Your task to perform on an android device: remove spam from my inbox in the gmail app Image 0: 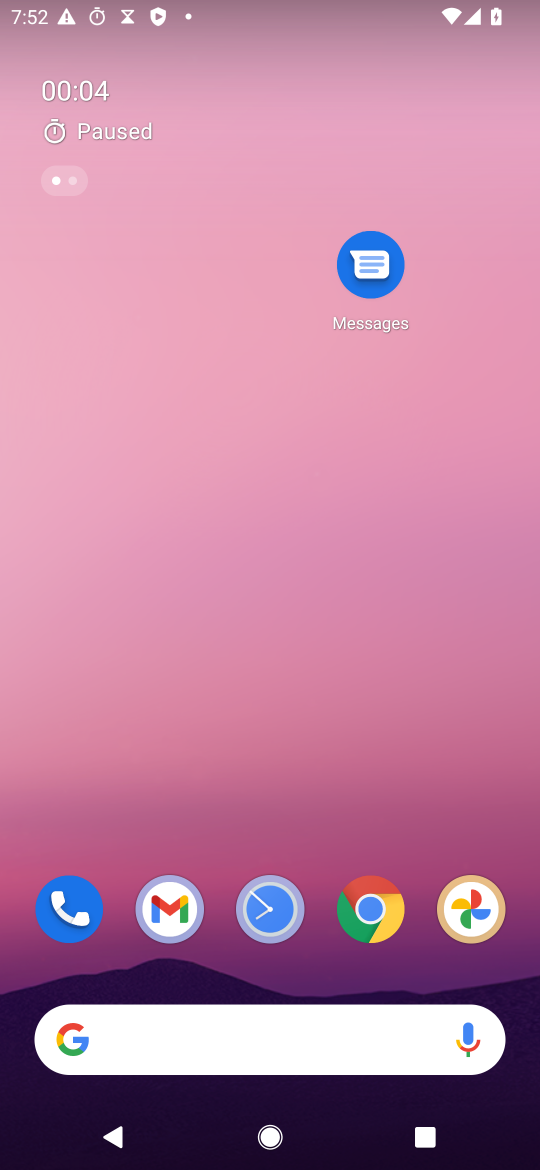
Step 0: click (170, 908)
Your task to perform on an android device: remove spam from my inbox in the gmail app Image 1: 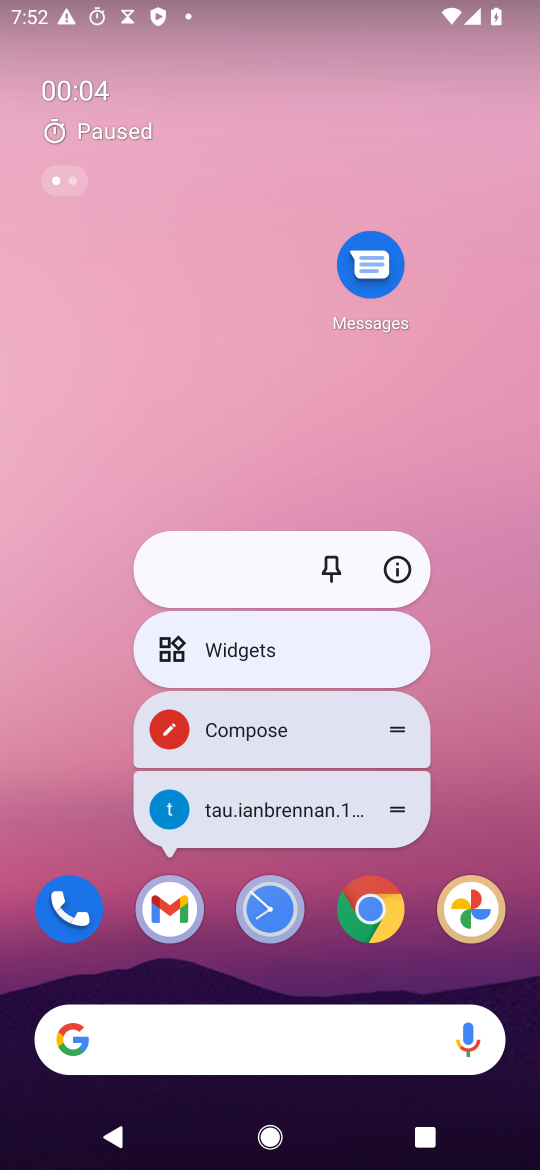
Step 1: click (170, 908)
Your task to perform on an android device: remove spam from my inbox in the gmail app Image 2: 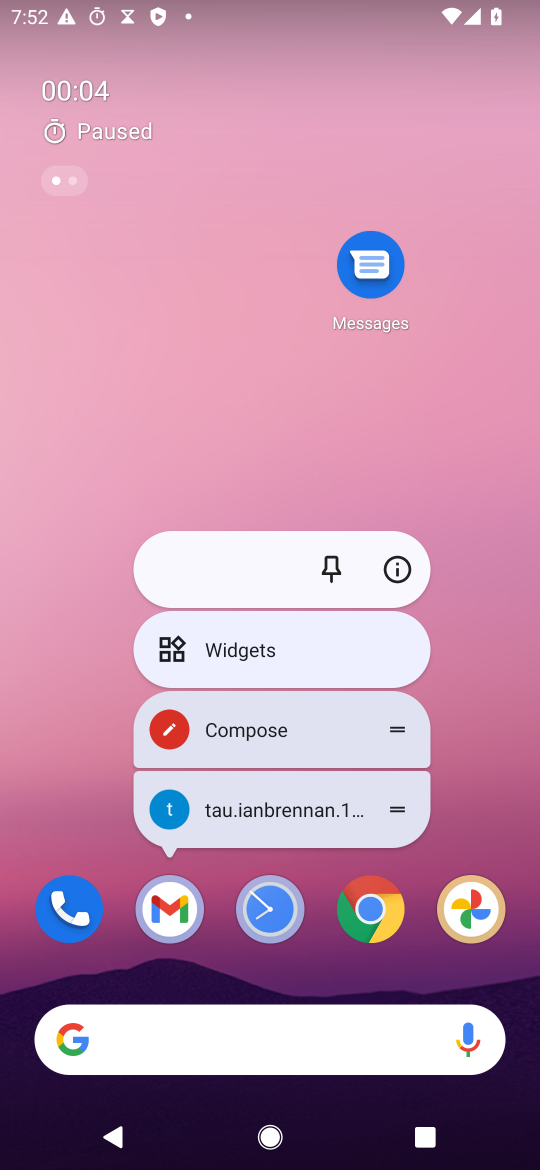
Step 2: click (170, 908)
Your task to perform on an android device: remove spam from my inbox in the gmail app Image 3: 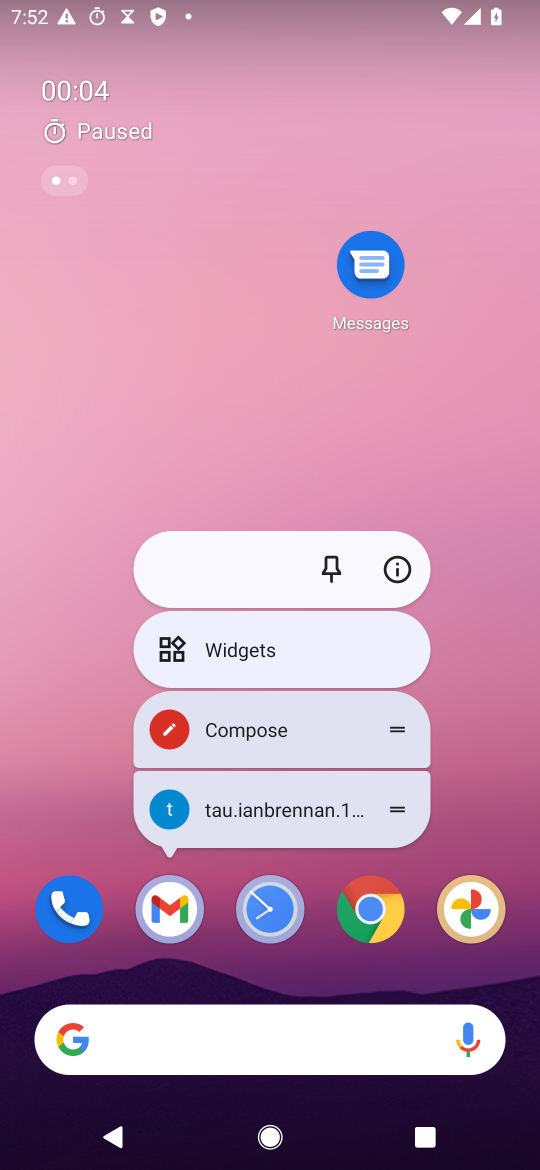
Step 3: click (164, 920)
Your task to perform on an android device: remove spam from my inbox in the gmail app Image 4: 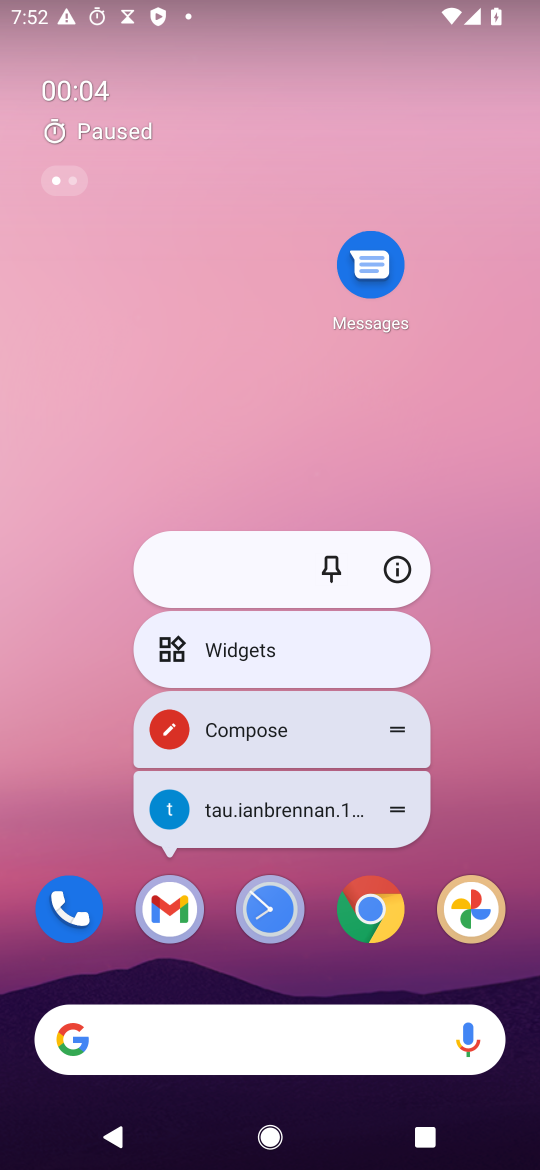
Step 4: click (164, 920)
Your task to perform on an android device: remove spam from my inbox in the gmail app Image 5: 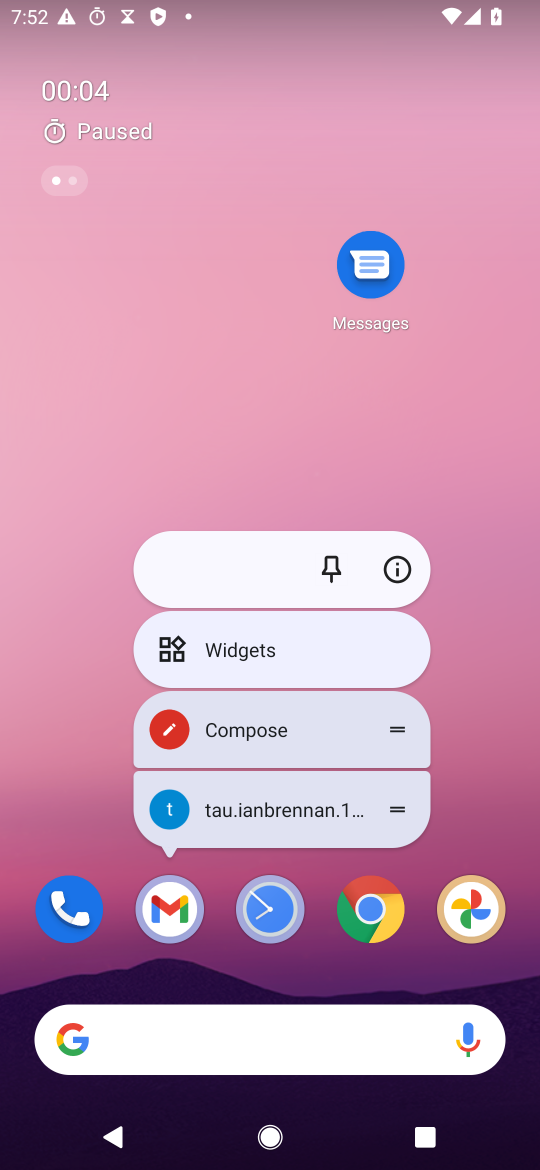
Step 5: click (164, 923)
Your task to perform on an android device: remove spam from my inbox in the gmail app Image 6: 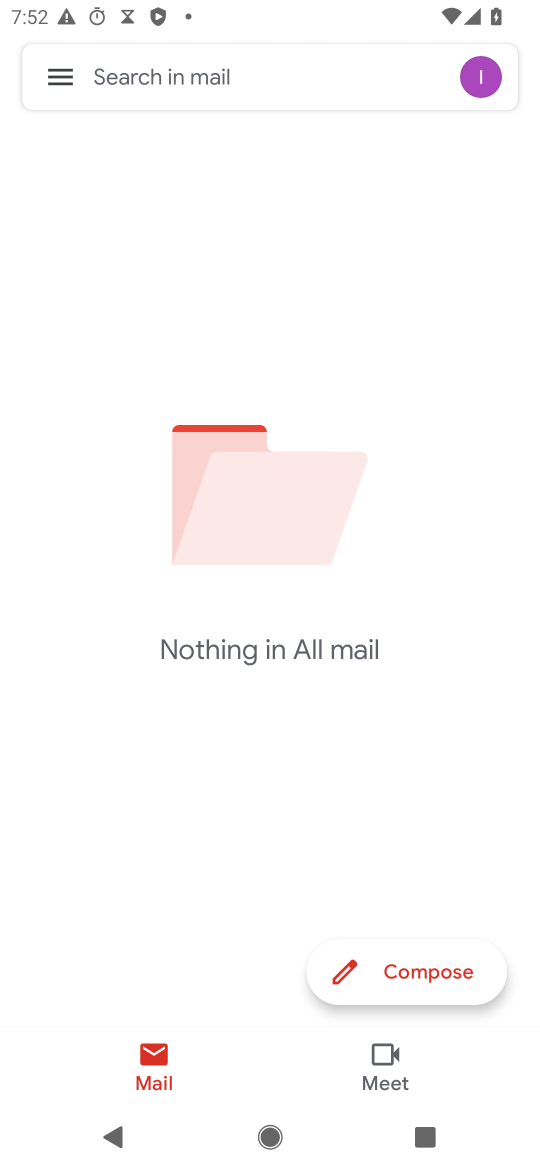
Step 6: click (66, 64)
Your task to perform on an android device: remove spam from my inbox in the gmail app Image 7: 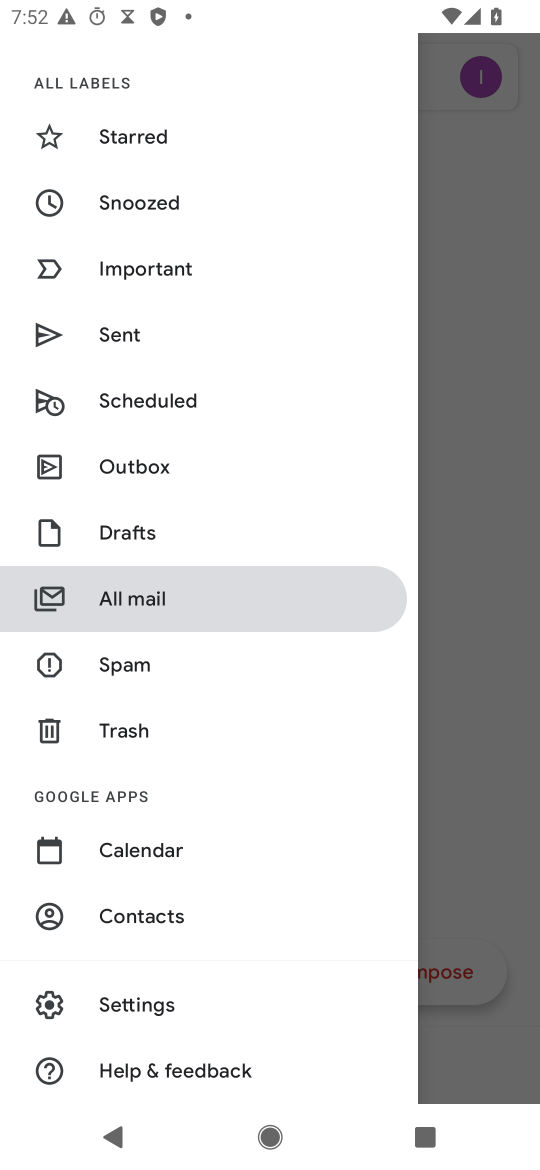
Step 7: click (125, 670)
Your task to perform on an android device: remove spam from my inbox in the gmail app Image 8: 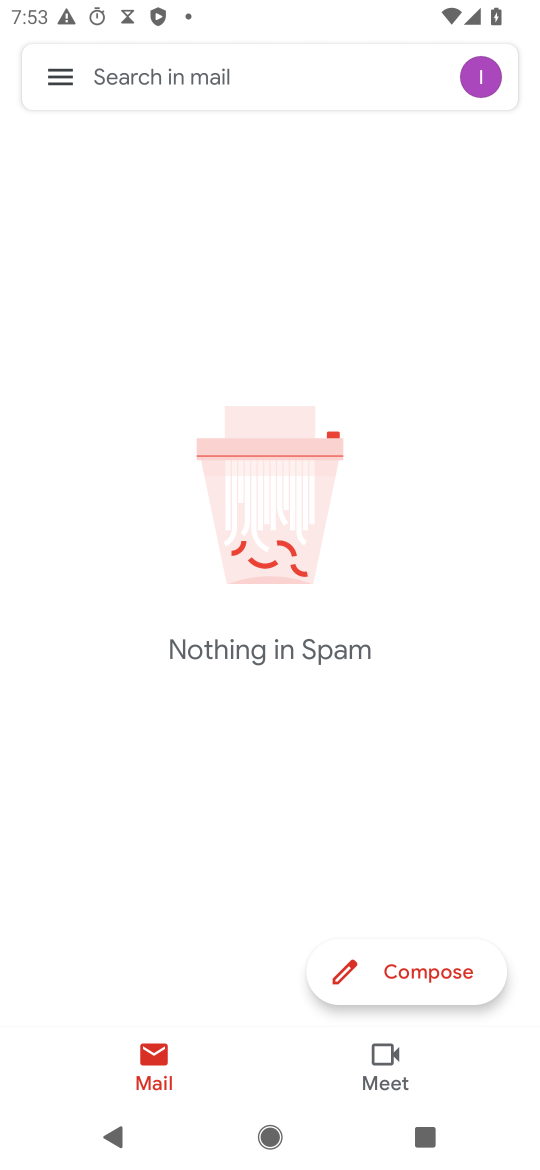
Step 8: task complete